Your task to perform on an android device: Do I have any events tomorrow? Image 0: 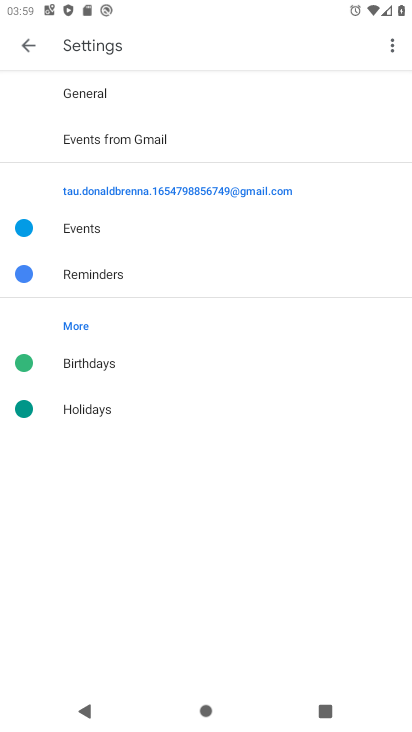
Step 0: press home button
Your task to perform on an android device: Do I have any events tomorrow? Image 1: 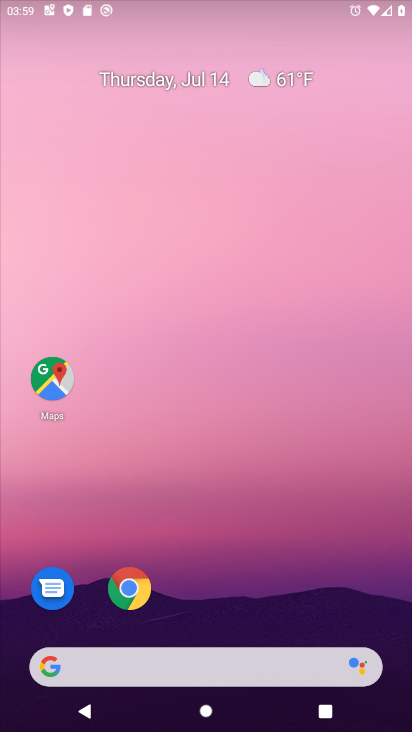
Step 1: drag from (240, 565) to (142, 59)
Your task to perform on an android device: Do I have any events tomorrow? Image 2: 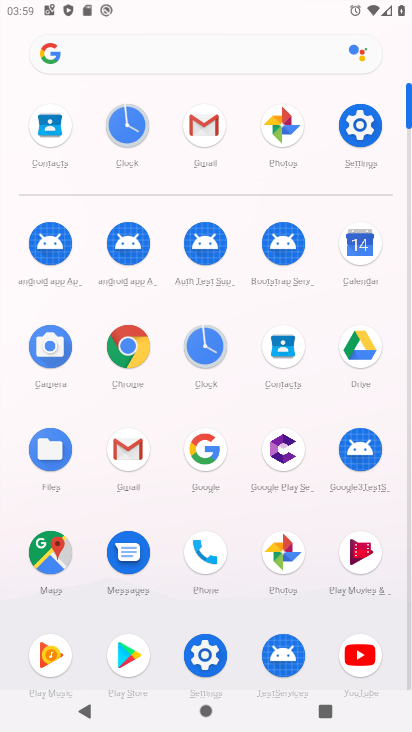
Step 2: click (361, 242)
Your task to perform on an android device: Do I have any events tomorrow? Image 3: 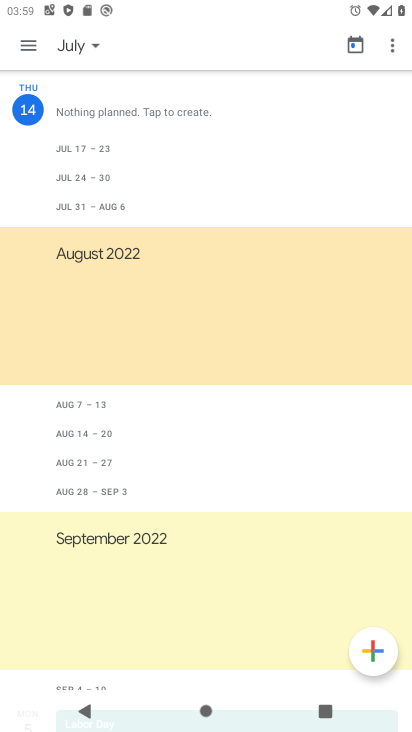
Step 3: click (29, 44)
Your task to perform on an android device: Do I have any events tomorrow? Image 4: 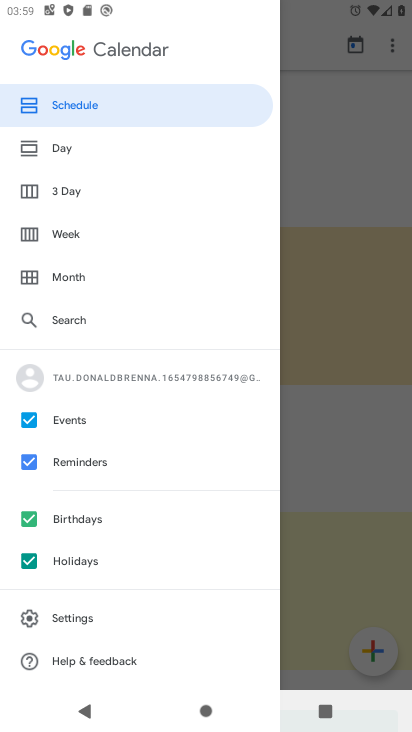
Step 4: click (62, 140)
Your task to perform on an android device: Do I have any events tomorrow? Image 5: 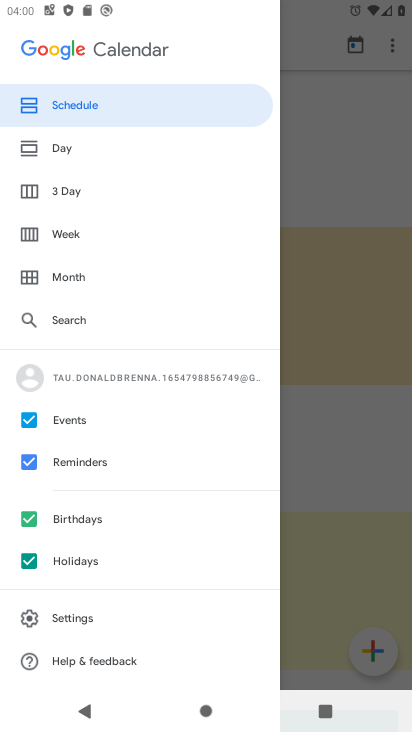
Step 5: click (65, 146)
Your task to perform on an android device: Do I have any events tomorrow? Image 6: 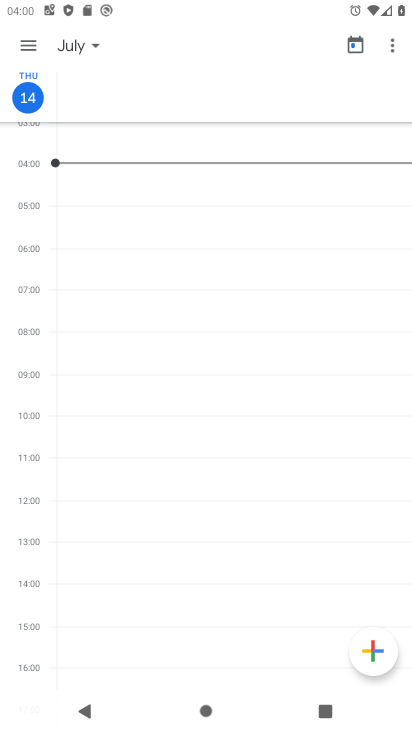
Step 6: task complete